Your task to perform on an android device: change keyboard looks Image 0: 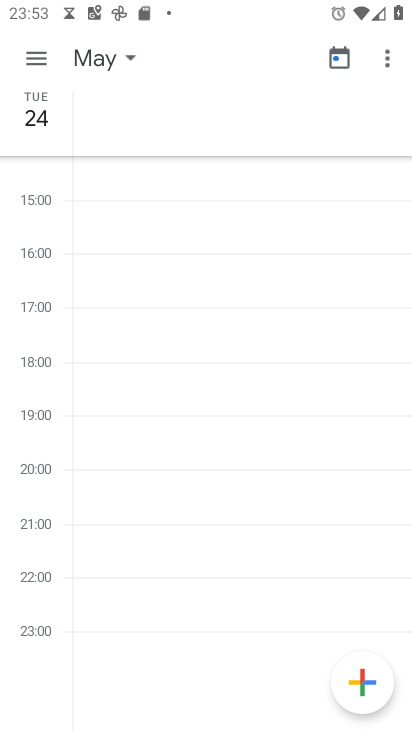
Step 0: press home button
Your task to perform on an android device: change keyboard looks Image 1: 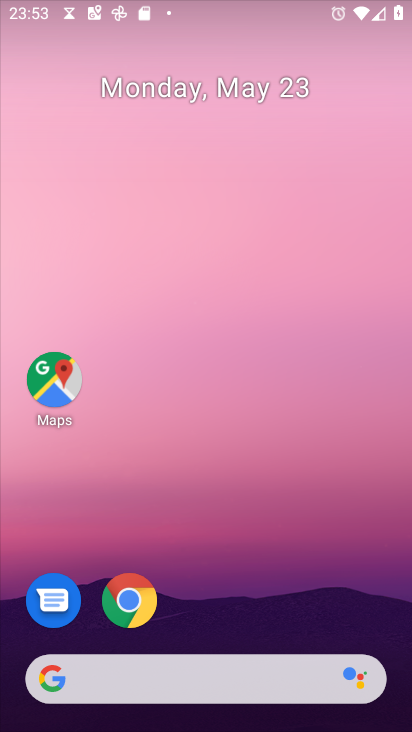
Step 1: drag from (223, 727) to (232, 129)
Your task to perform on an android device: change keyboard looks Image 2: 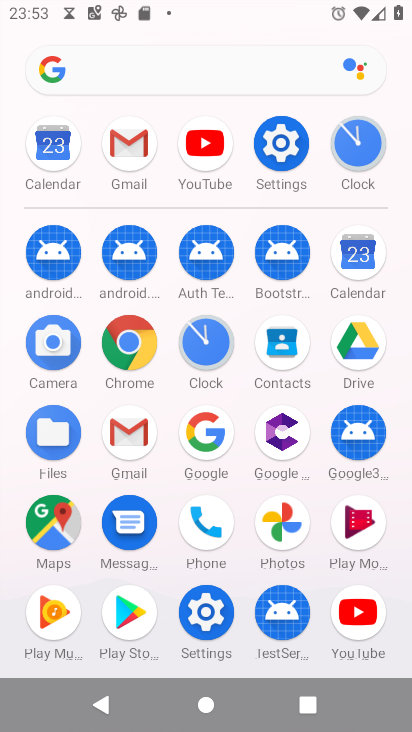
Step 2: click (294, 141)
Your task to perform on an android device: change keyboard looks Image 3: 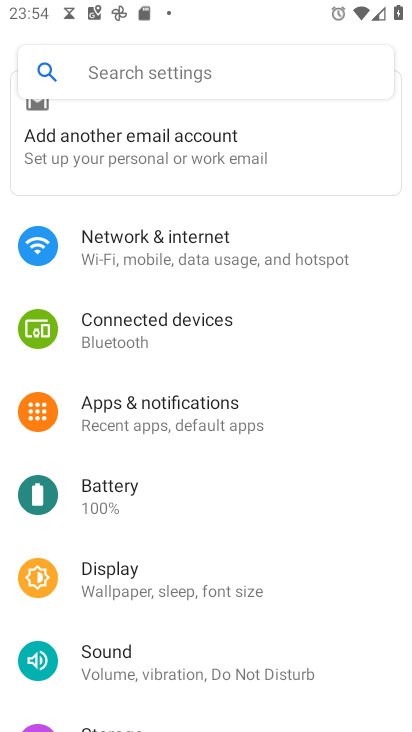
Step 3: drag from (201, 662) to (210, 235)
Your task to perform on an android device: change keyboard looks Image 4: 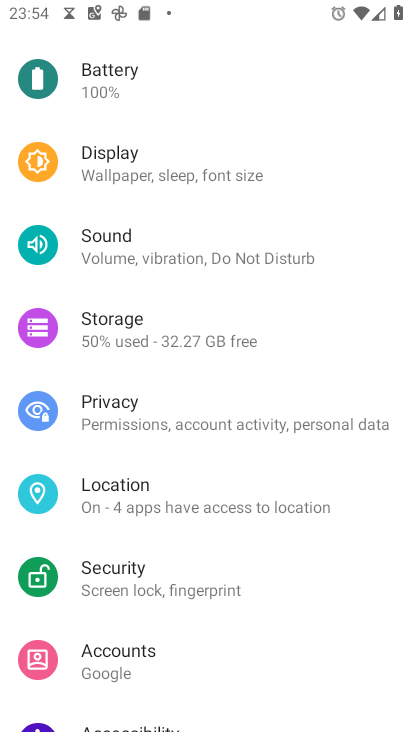
Step 4: drag from (212, 672) to (221, 223)
Your task to perform on an android device: change keyboard looks Image 5: 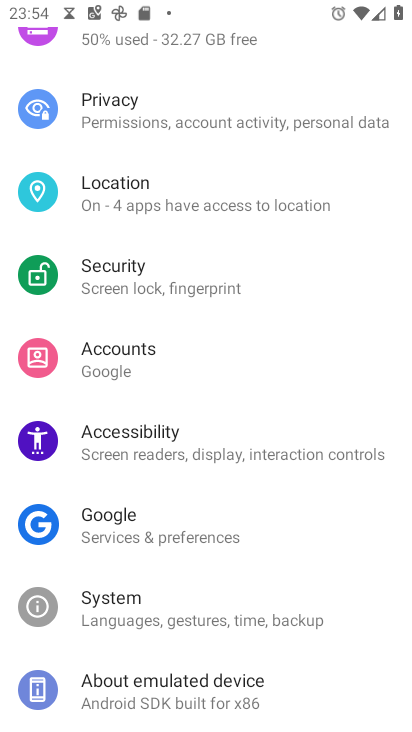
Step 5: click (168, 617)
Your task to perform on an android device: change keyboard looks Image 6: 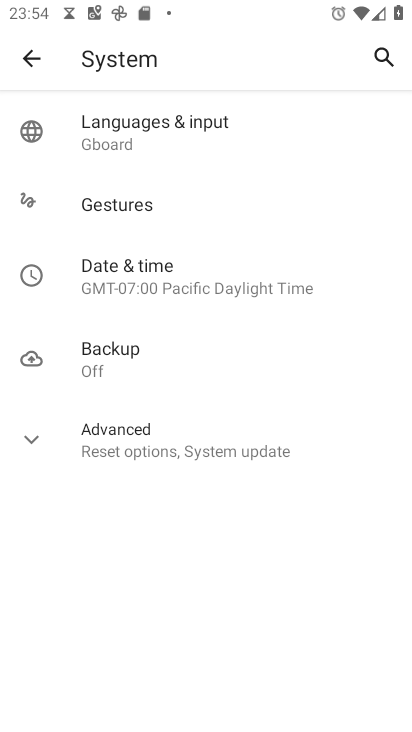
Step 6: click (134, 130)
Your task to perform on an android device: change keyboard looks Image 7: 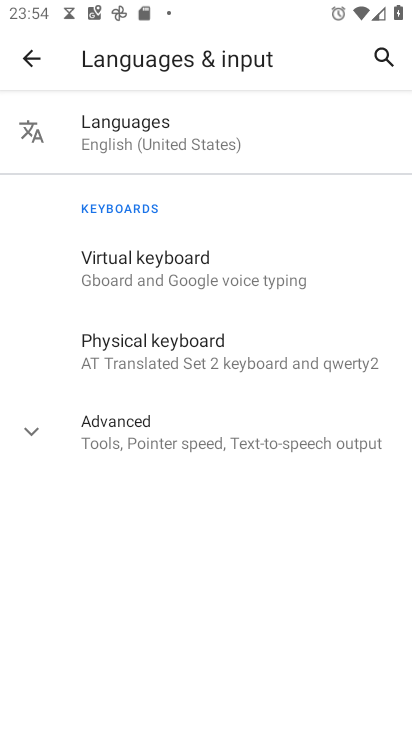
Step 7: click (143, 266)
Your task to perform on an android device: change keyboard looks Image 8: 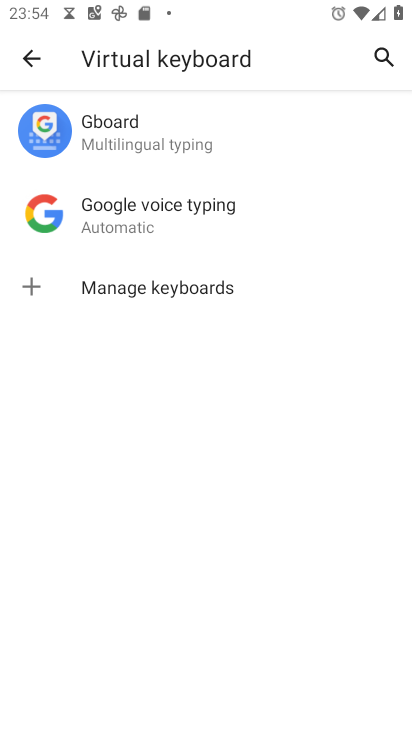
Step 8: click (119, 136)
Your task to perform on an android device: change keyboard looks Image 9: 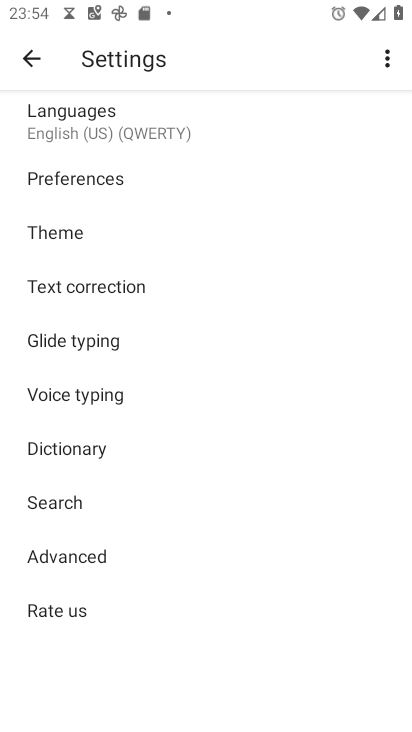
Step 9: click (54, 234)
Your task to perform on an android device: change keyboard looks Image 10: 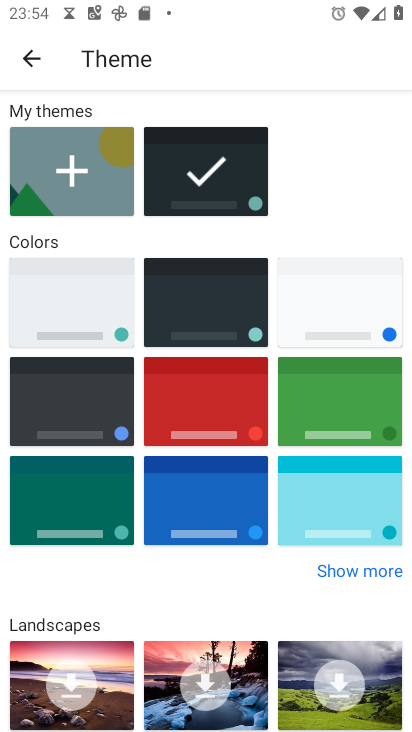
Step 10: click (194, 316)
Your task to perform on an android device: change keyboard looks Image 11: 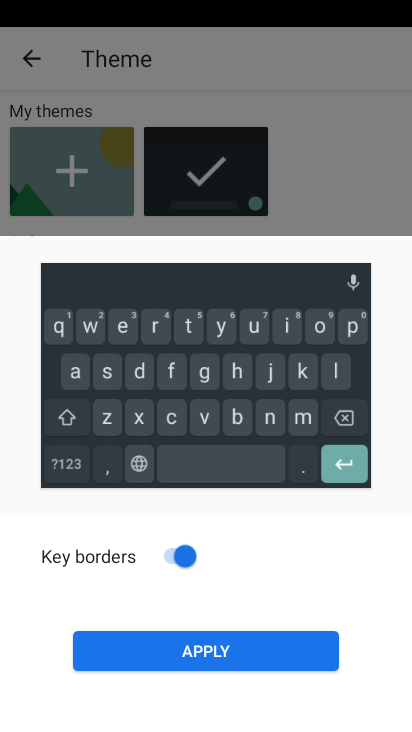
Step 11: click (228, 653)
Your task to perform on an android device: change keyboard looks Image 12: 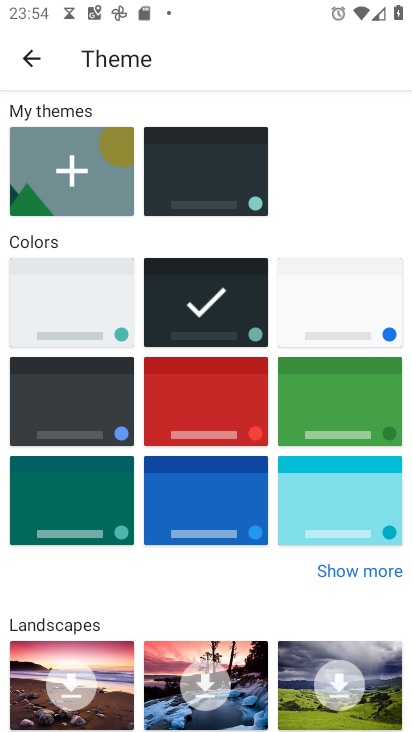
Step 12: task complete